Your task to perform on an android device: Empty the shopping cart on ebay.com. Image 0: 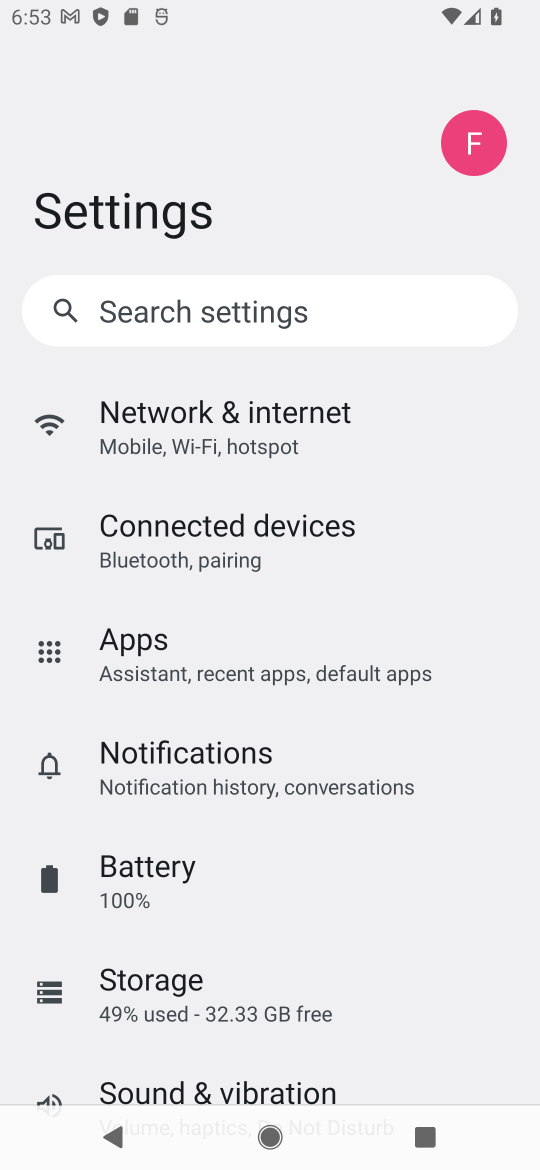
Step 0: press home button
Your task to perform on an android device: Empty the shopping cart on ebay.com. Image 1: 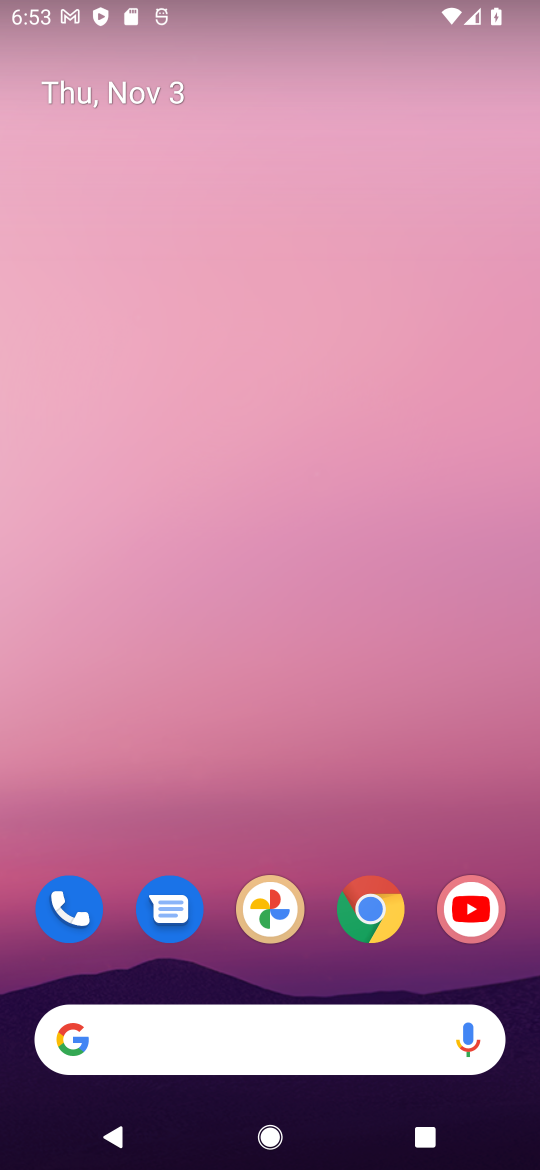
Step 1: drag from (207, 1013) to (209, 191)
Your task to perform on an android device: Empty the shopping cart on ebay.com. Image 2: 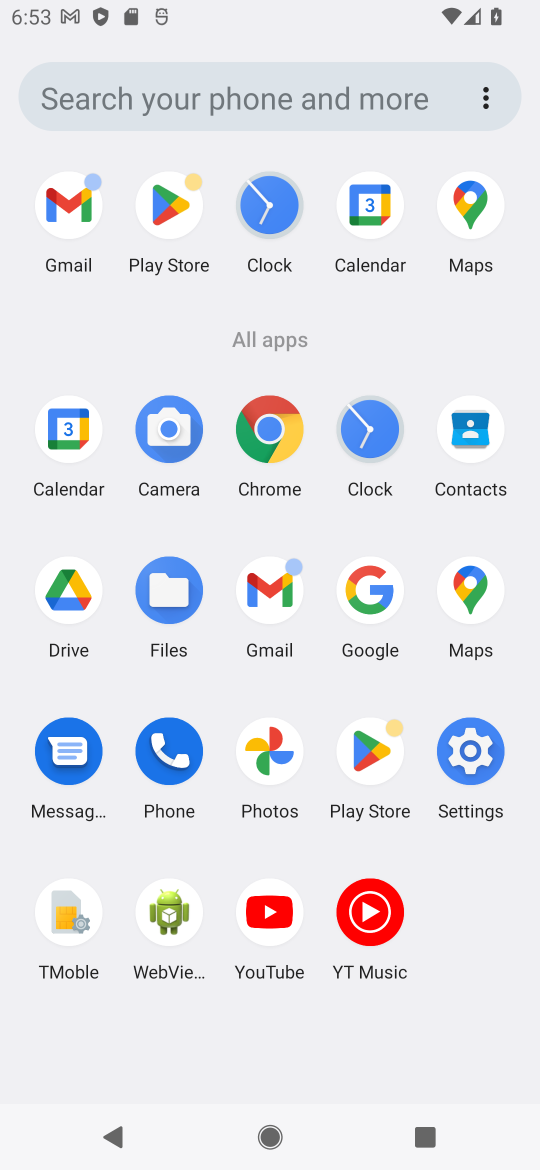
Step 2: click (370, 582)
Your task to perform on an android device: Empty the shopping cart on ebay.com. Image 3: 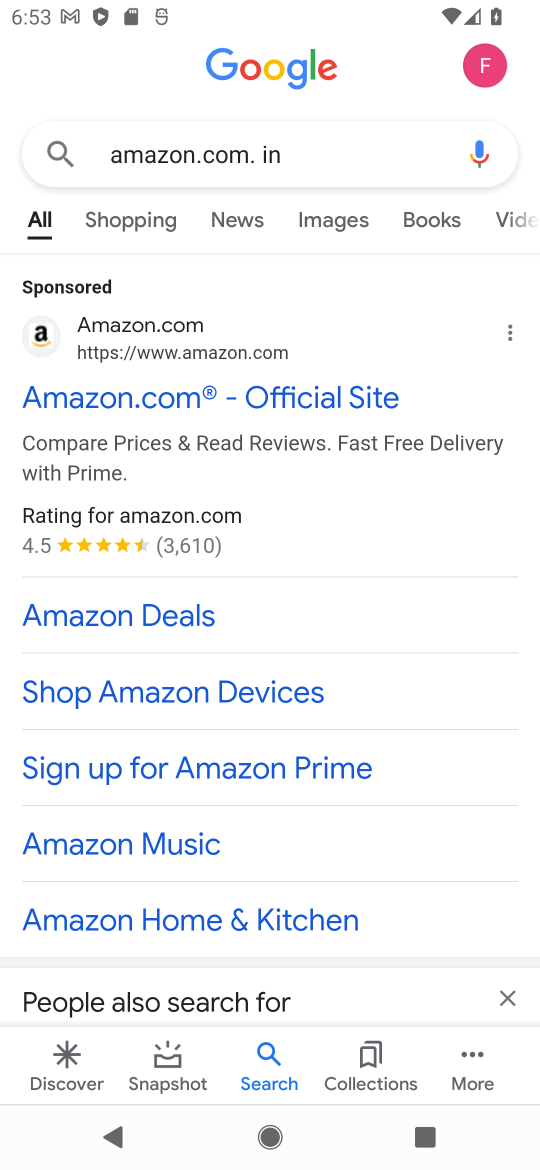
Step 3: click (306, 145)
Your task to perform on an android device: Empty the shopping cart on ebay.com. Image 4: 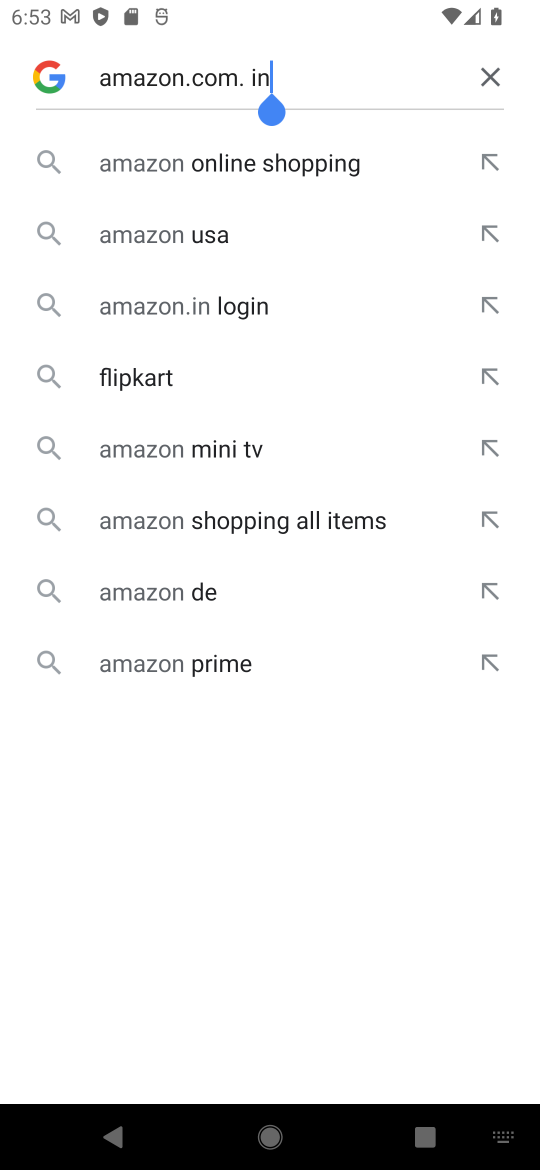
Step 4: click (480, 79)
Your task to perform on an android device: Empty the shopping cart on ebay.com. Image 5: 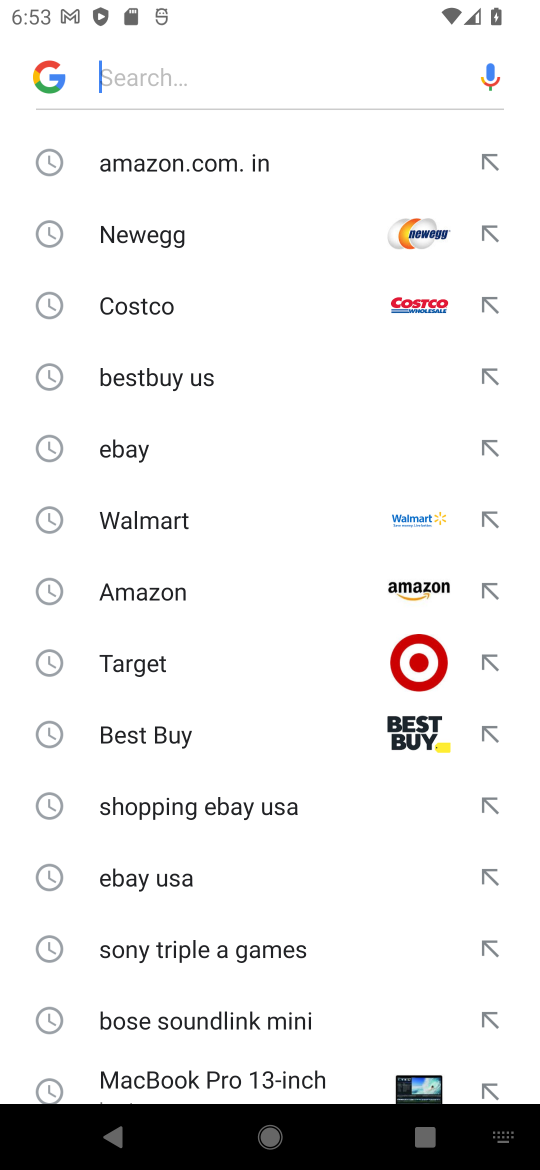
Step 5: click (276, 63)
Your task to perform on an android device: Empty the shopping cart on ebay.com. Image 6: 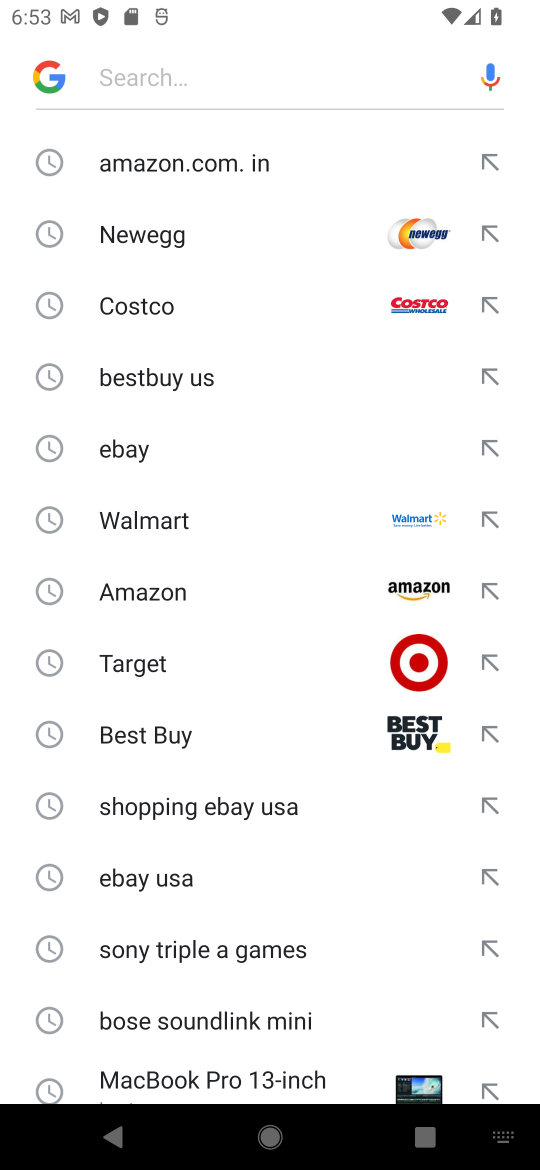
Step 6: type "ebay "
Your task to perform on an android device: Empty the shopping cart on ebay.com. Image 7: 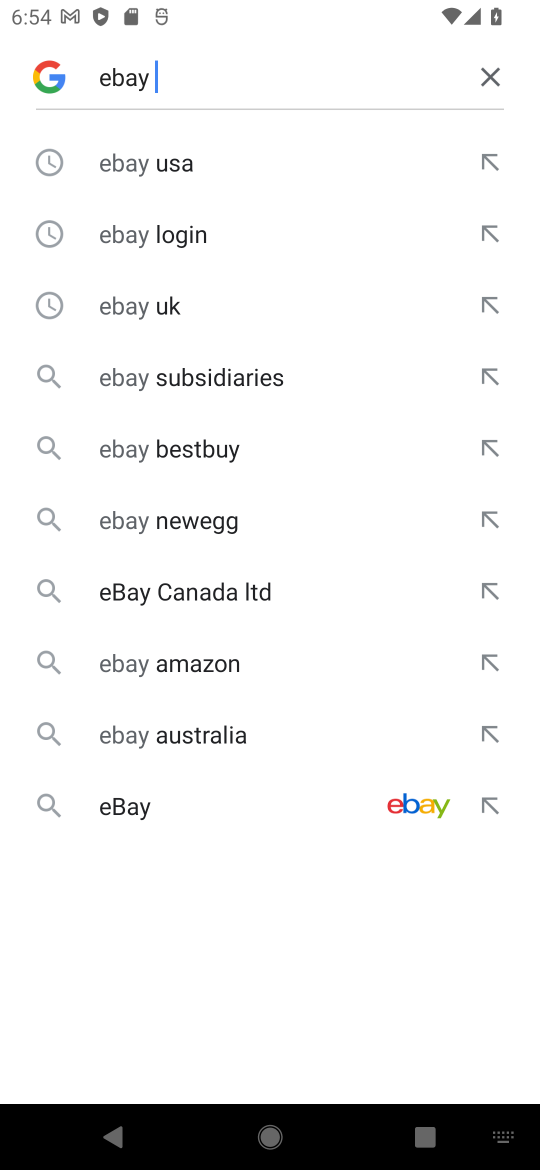
Step 7: click (142, 160)
Your task to perform on an android device: Empty the shopping cart on ebay.com. Image 8: 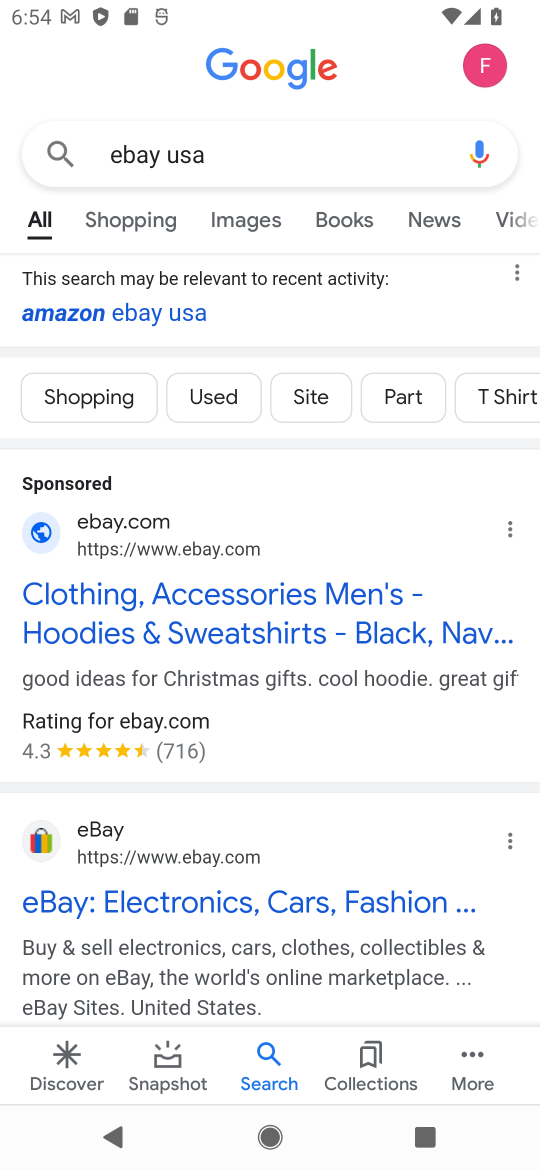
Step 8: click (20, 841)
Your task to perform on an android device: Empty the shopping cart on ebay.com. Image 9: 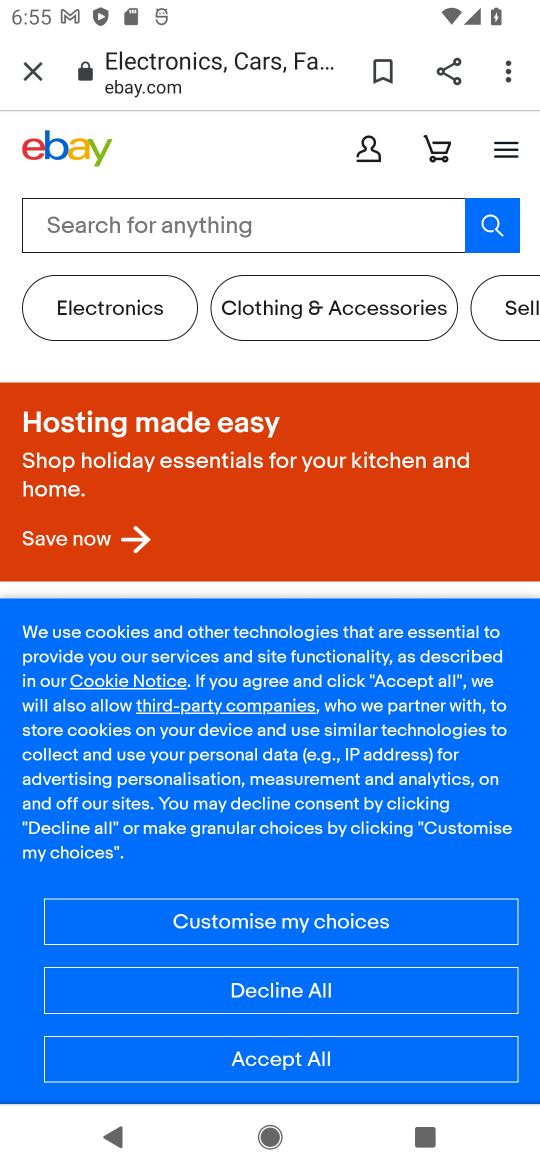
Step 9: click (323, 1069)
Your task to perform on an android device: Empty the shopping cart on ebay.com. Image 10: 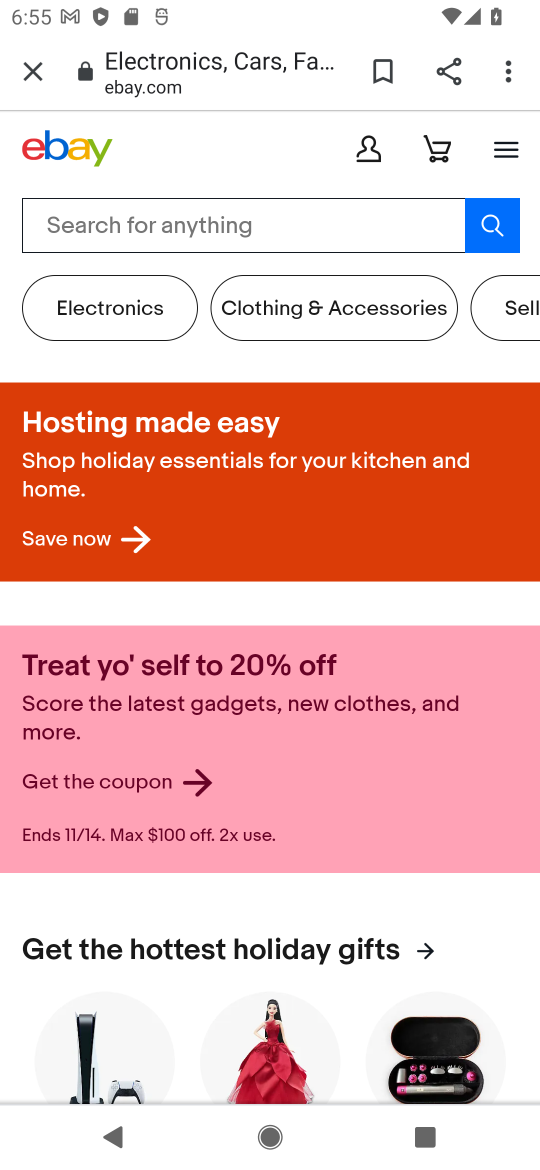
Step 10: click (271, 218)
Your task to perform on an android device: Empty the shopping cart on ebay.com. Image 11: 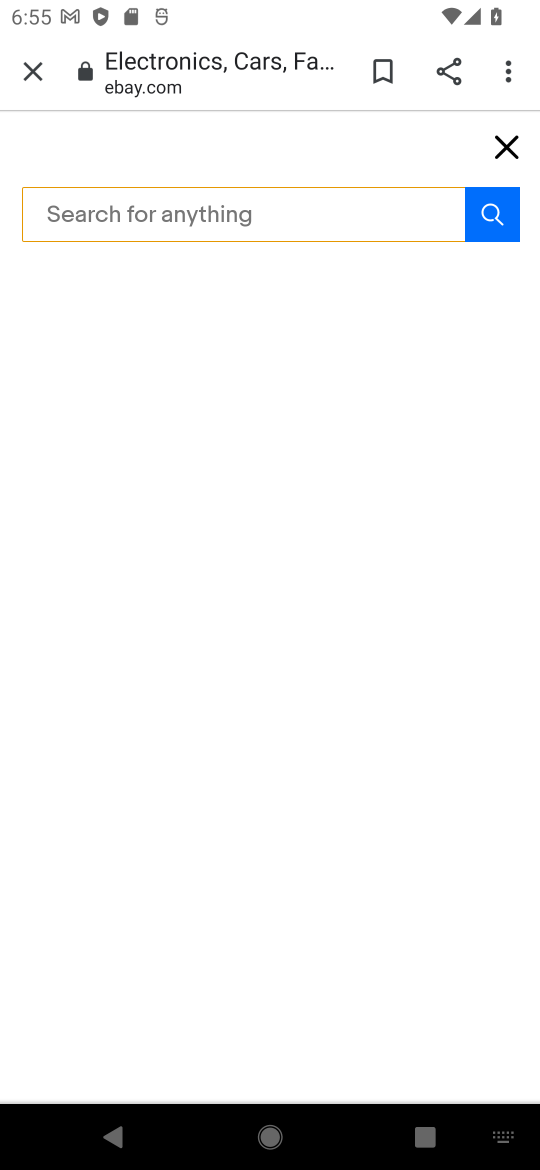
Step 11: click (508, 152)
Your task to perform on an android device: Empty the shopping cart on ebay.com. Image 12: 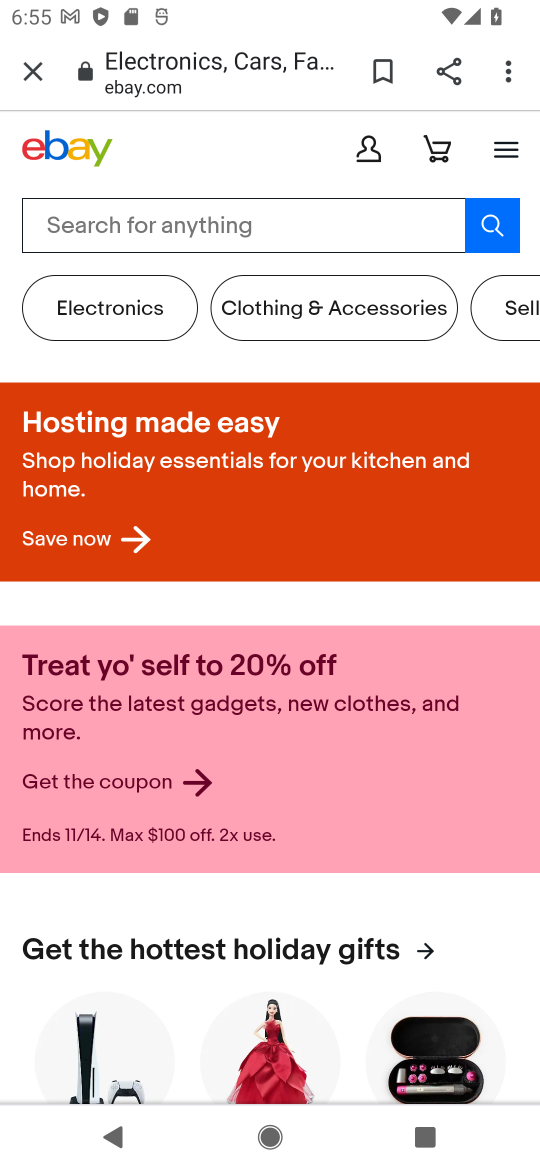
Step 12: click (438, 132)
Your task to perform on an android device: Empty the shopping cart on ebay.com. Image 13: 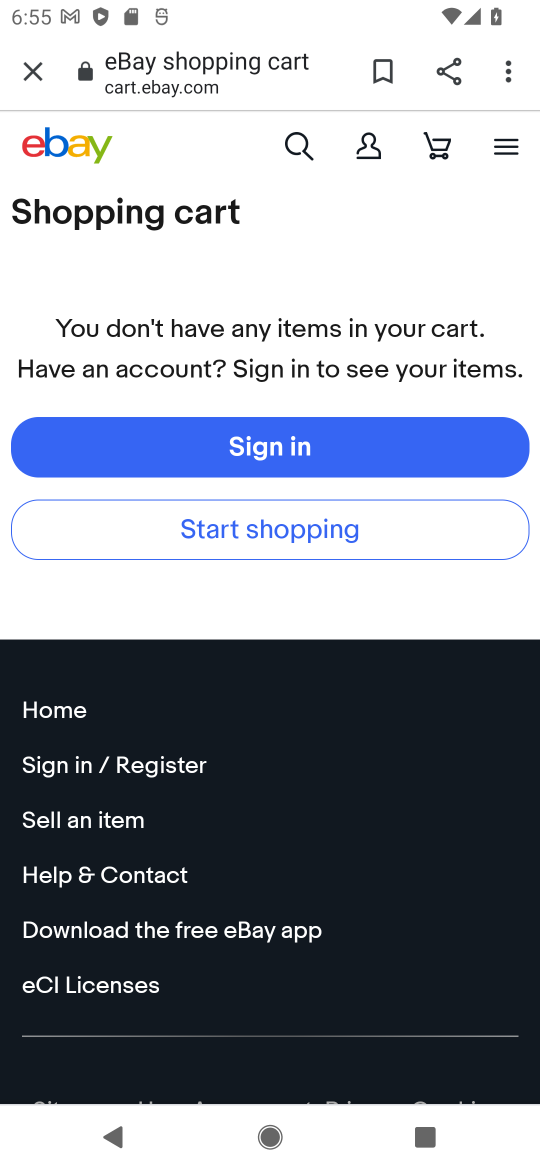
Step 13: task complete